Your task to perform on an android device: Open Yahoo.com Image 0: 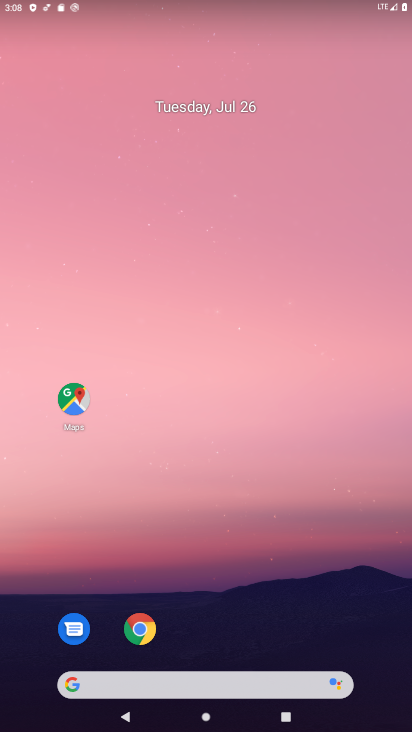
Step 0: click (139, 631)
Your task to perform on an android device: Open Yahoo.com Image 1: 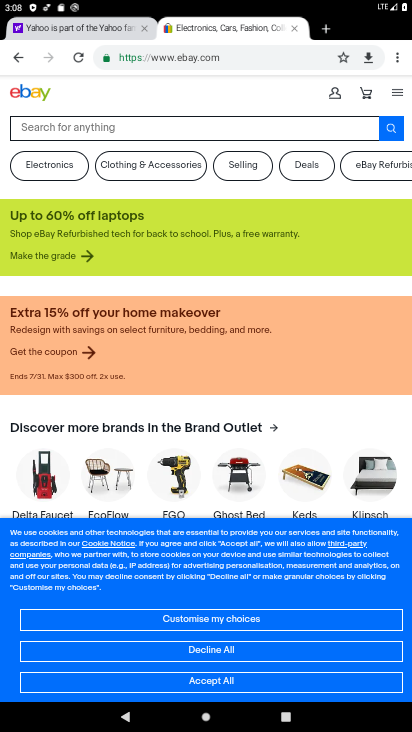
Step 1: click (397, 58)
Your task to perform on an android device: Open Yahoo.com Image 2: 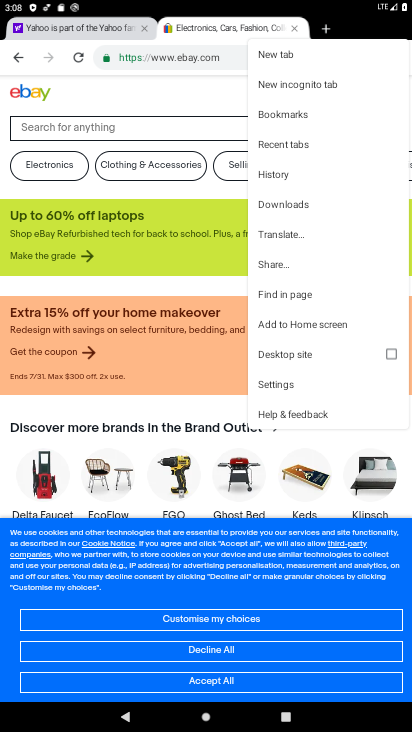
Step 2: click (271, 57)
Your task to perform on an android device: Open Yahoo.com Image 3: 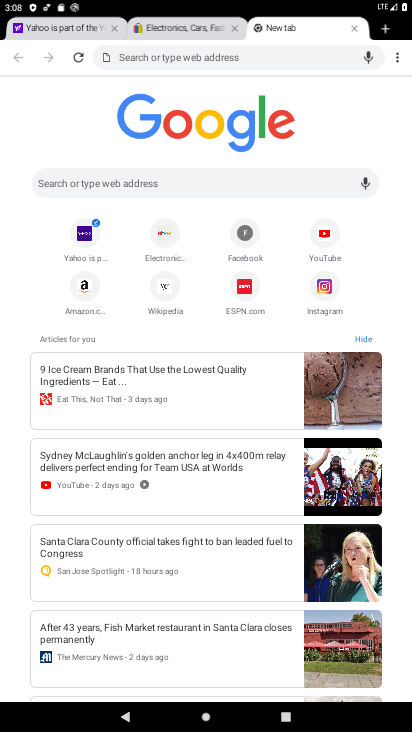
Step 3: click (82, 231)
Your task to perform on an android device: Open Yahoo.com Image 4: 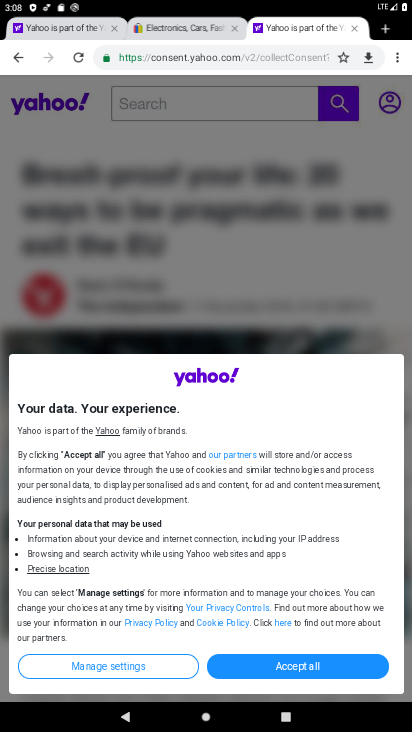
Step 4: task complete